Your task to perform on an android device: Go to Wikipedia Image 0: 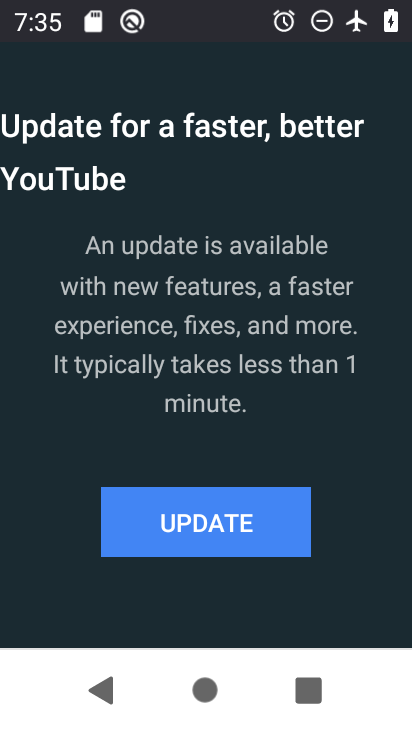
Step 0: press home button
Your task to perform on an android device: Go to Wikipedia Image 1: 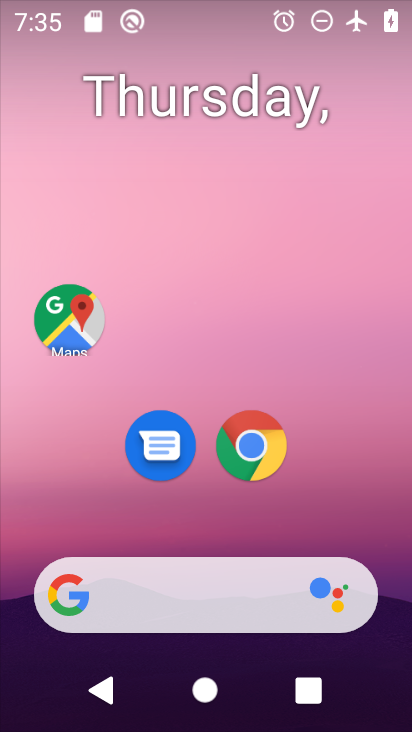
Step 1: click (256, 442)
Your task to perform on an android device: Go to Wikipedia Image 2: 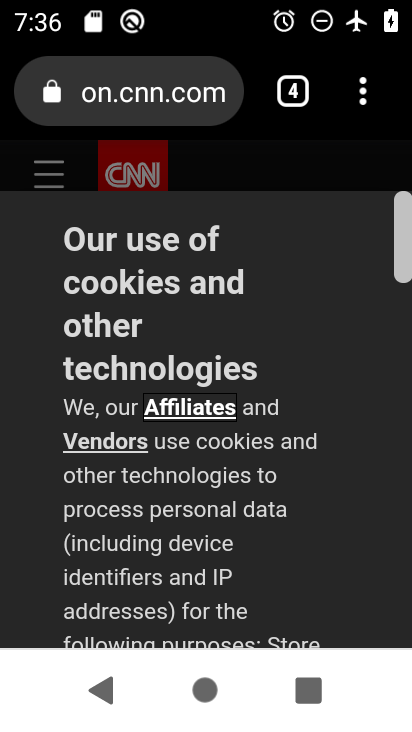
Step 2: click (365, 91)
Your task to perform on an android device: Go to Wikipedia Image 3: 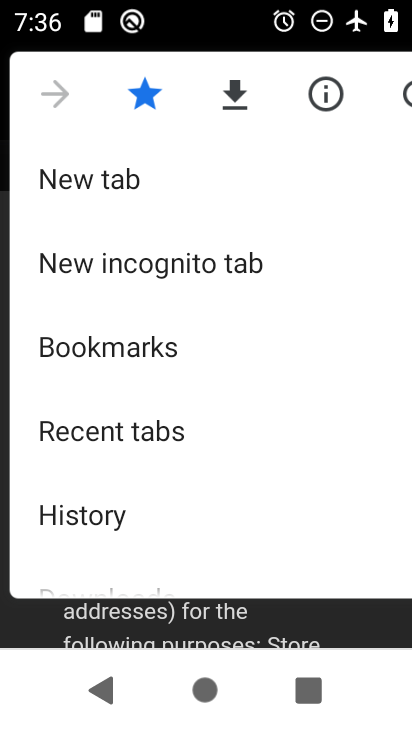
Step 3: click (102, 181)
Your task to perform on an android device: Go to Wikipedia Image 4: 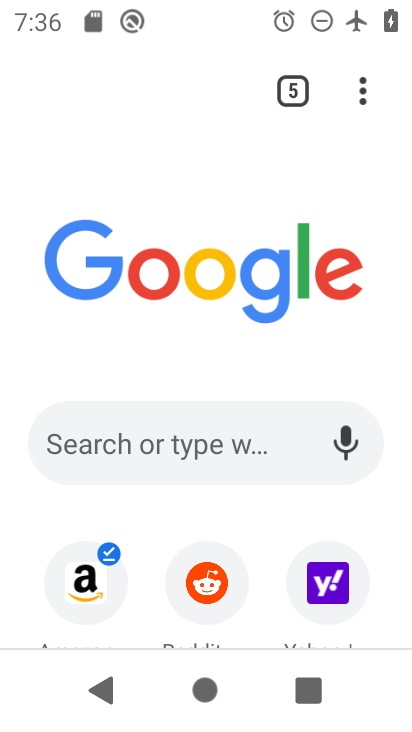
Step 4: drag from (268, 517) to (215, 245)
Your task to perform on an android device: Go to Wikipedia Image 5: 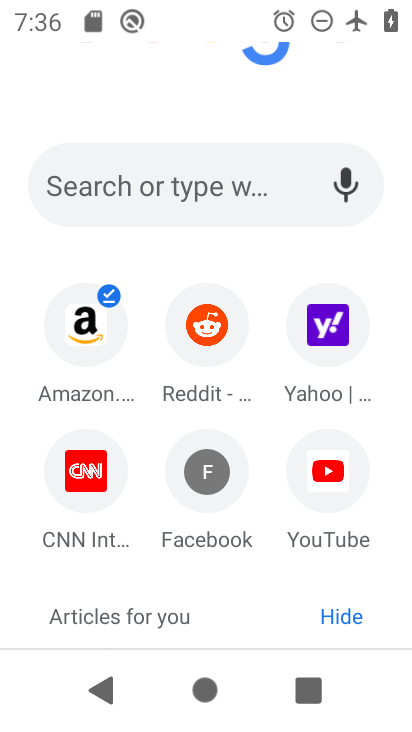
Step 5: click (179, 175)
Your task to perform on an android device: Go to Wikipedia Image 6: 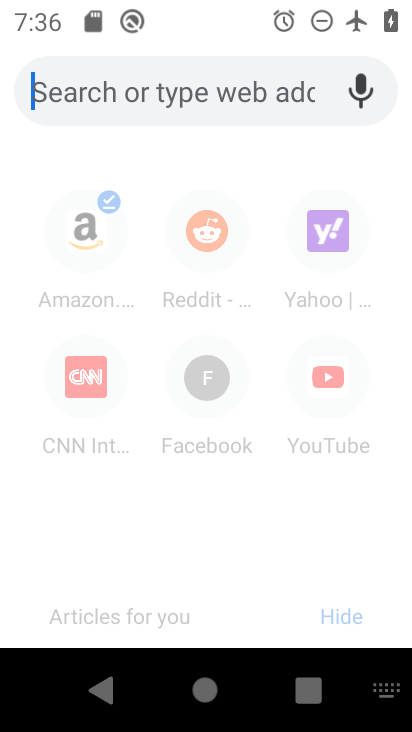
Step 6: type "wikipedia"
Your task to perform on an android device: Go to Wikipedia Image 7: 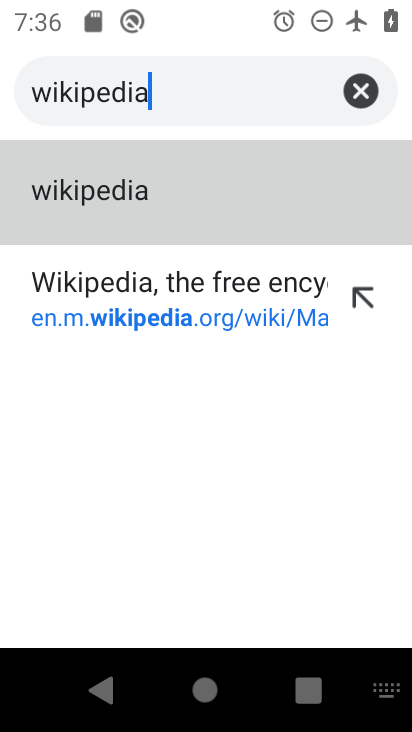
Step 7: click (141, 185)
Your task to perform on an android device: Go to Wikipedia Image 8: 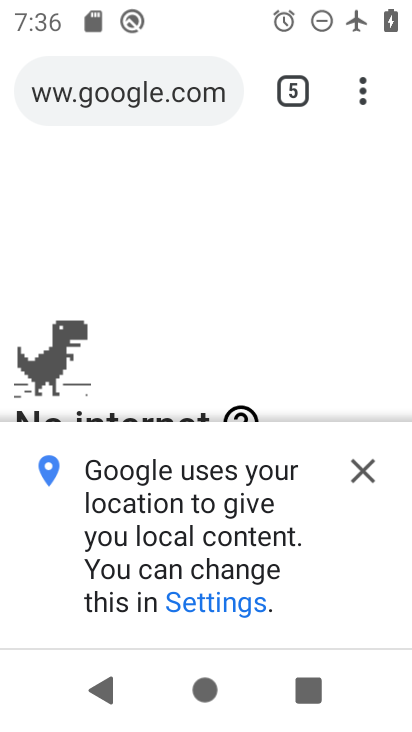
Step 8: task complete